Your task to perform on an android device: clear history in the chrome app Image 0: 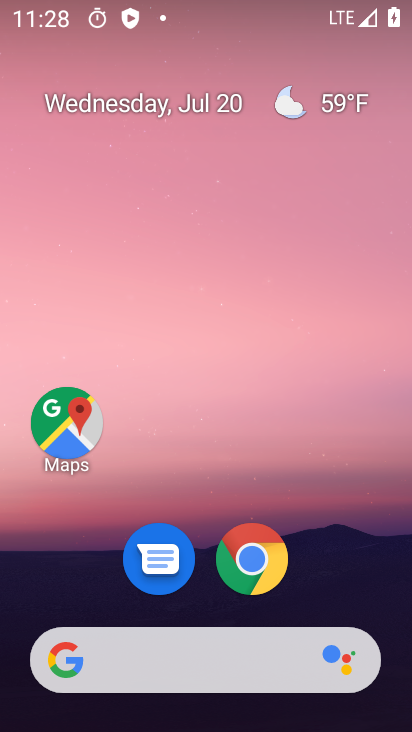
Step 0: click (265, 566)
Your task to perform on an android device: clear history in the chrome app Image 1: 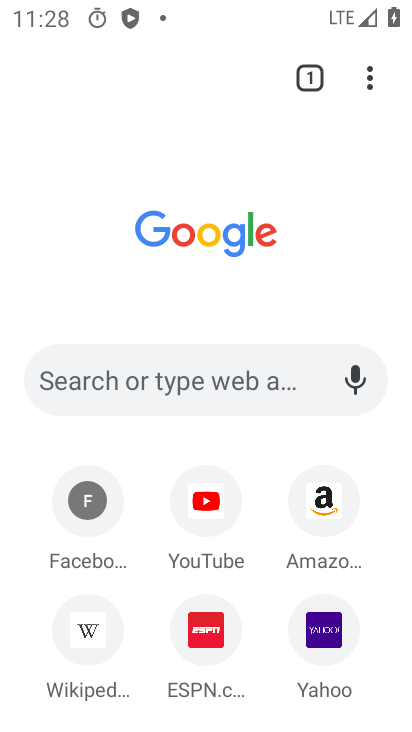
Step 1: drag from (367, 81) to (87, 430)
Your task to perform on an android device: clear history in the chrome app Image 2: 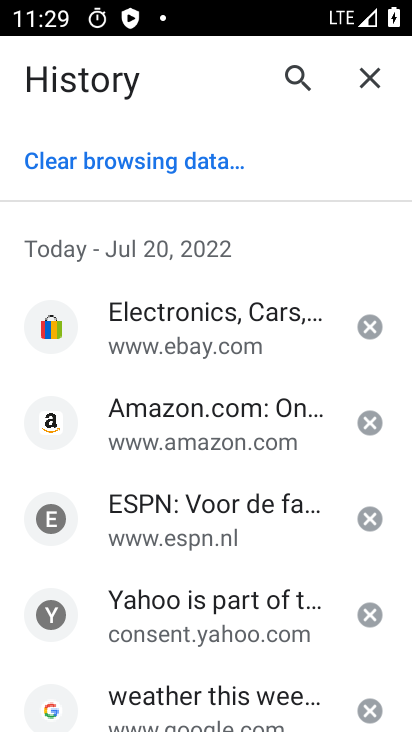
Step 2: click (67, 166)
Your task to perform on an android device: clear history in the chrome app Image 3: 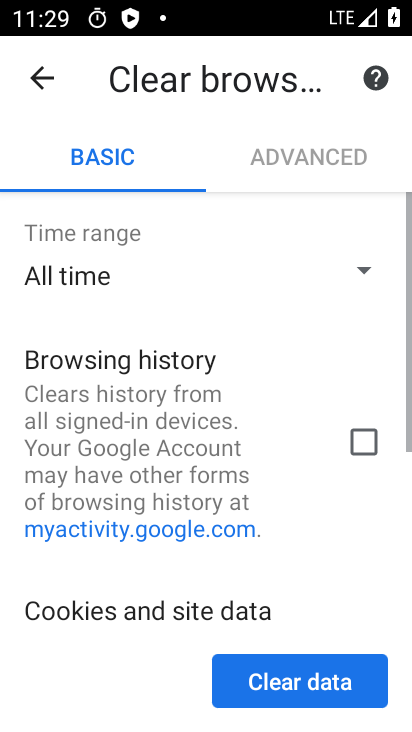
Step 3: click (369, 431)
Your task to perform on an android device: clear history in the chrome app Image 4: 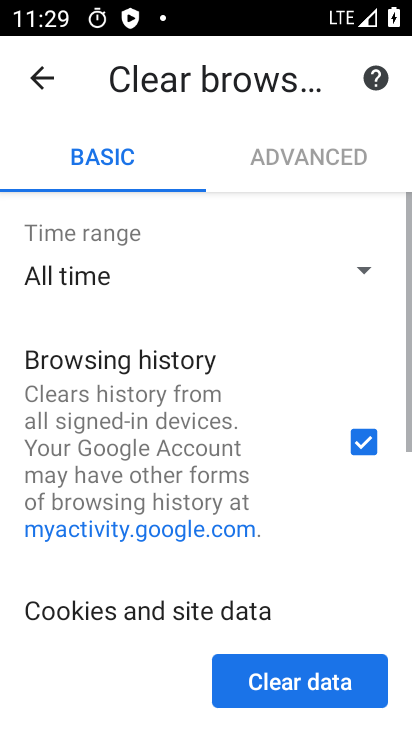
Step 4: drag from (208, 562) to (241, 136)
Your task to perform on an android device: clear history in the chrome app Image 5: 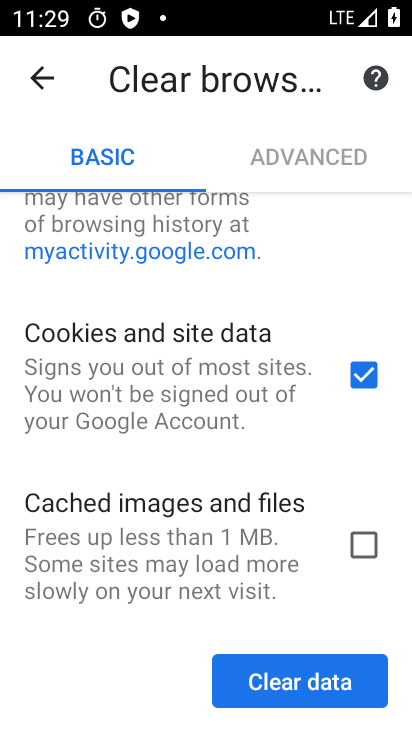
Step 5: click (362, 536)
Your task to perform on an android device: clear history in the chrome app Image 6: 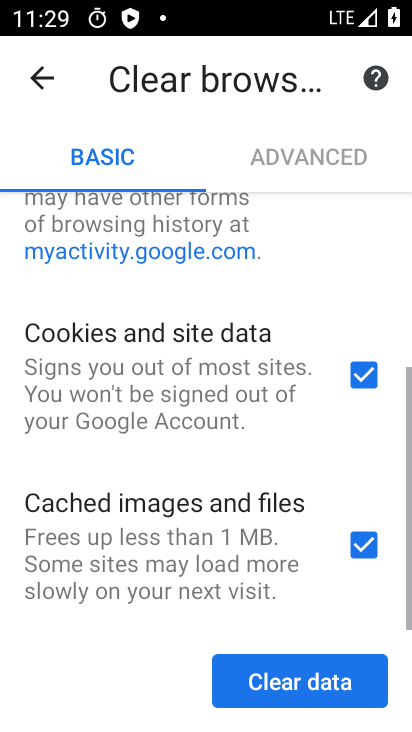
Step 6: click (339, 677)
Your task to perform on an android device: clear history in the chrome app Image 7: 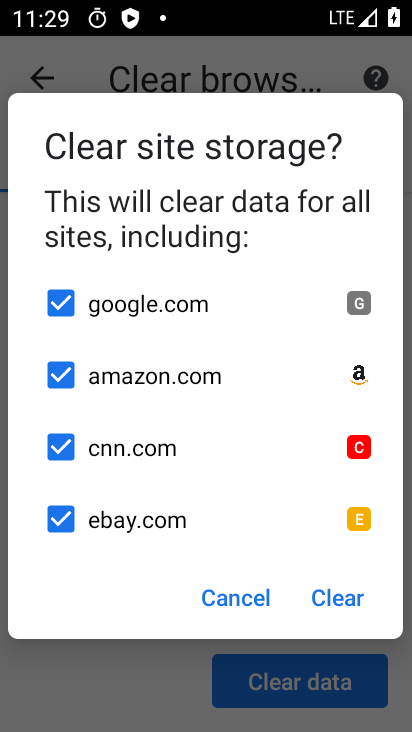
Step 7: click (322, 599)
Your task to perform on an android device: clear history in the chrome app Image 8: 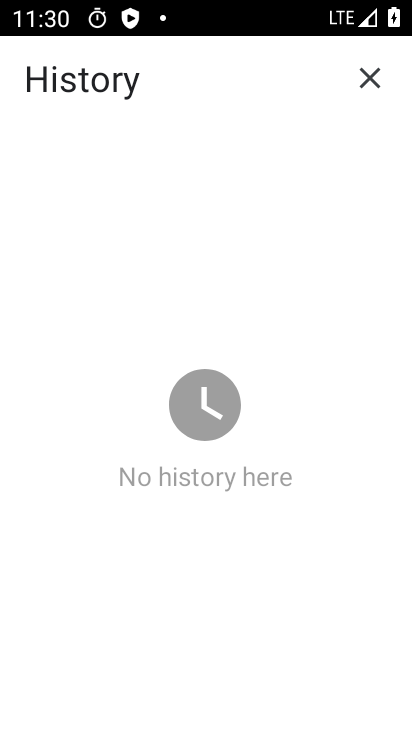
Step 8: task complete